Your task to perform on an android device: toggle translation in the chrome app Image 0: 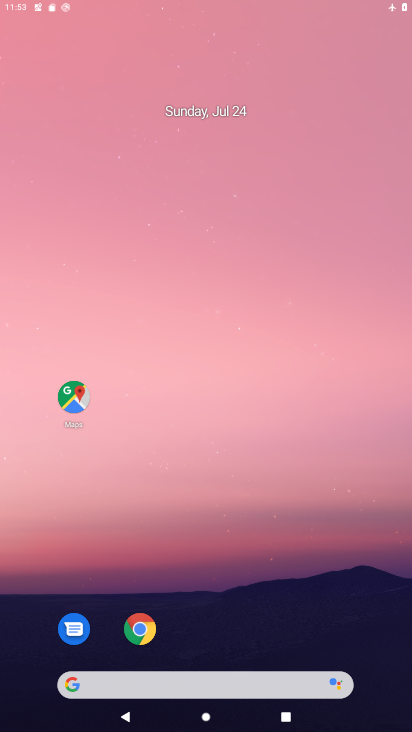
Step 0: click (184, 76)
Your task to perform on an android device: toggle translation in the chrome app Image 1: 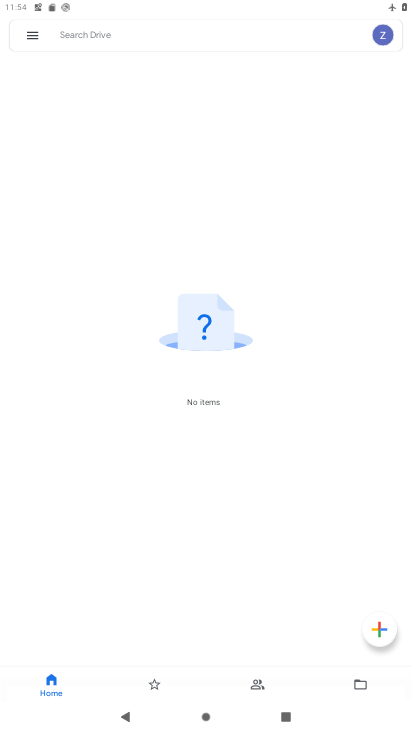
Step 1: press home button
Your task to perform on an android device: toggle translation in the chrome app Image 2: 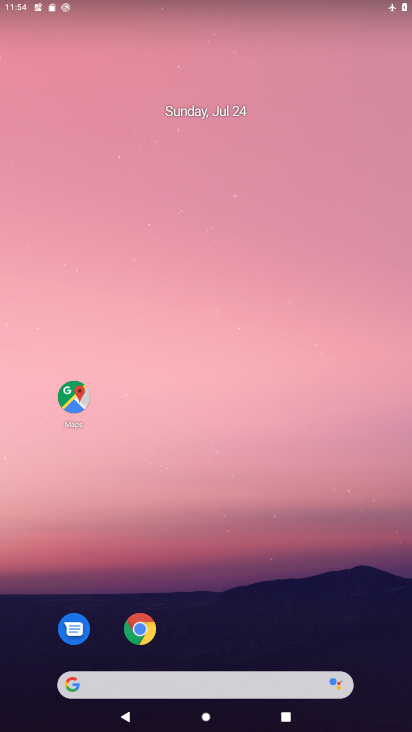
Step 2: click (141, 631)
Your task to perform on an android device: toggle translation in the chrome app Image 3: 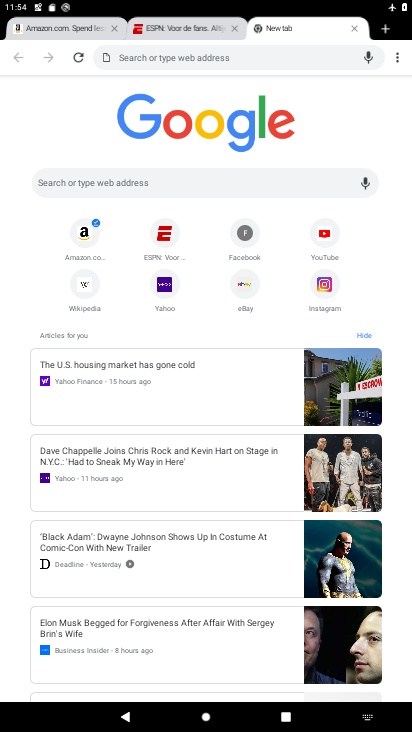
Step 3: click (394, 61)
Your task to perform on an android device: toggle translation in the chrome app Image 4: 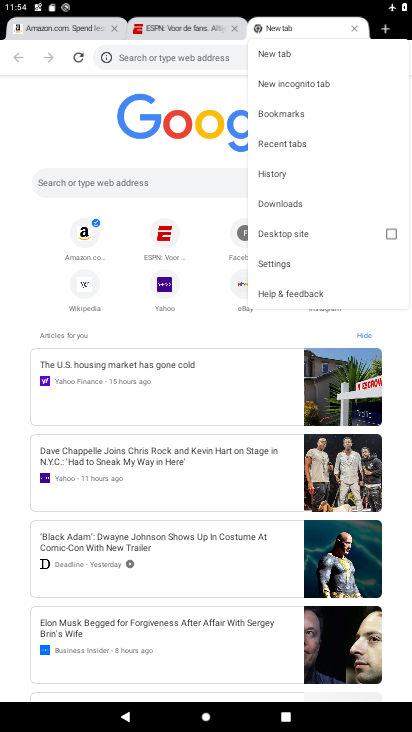
Step 4: click (278, 262)
Your task to perform on an android device: toggle translation in the chrome app Image 5: 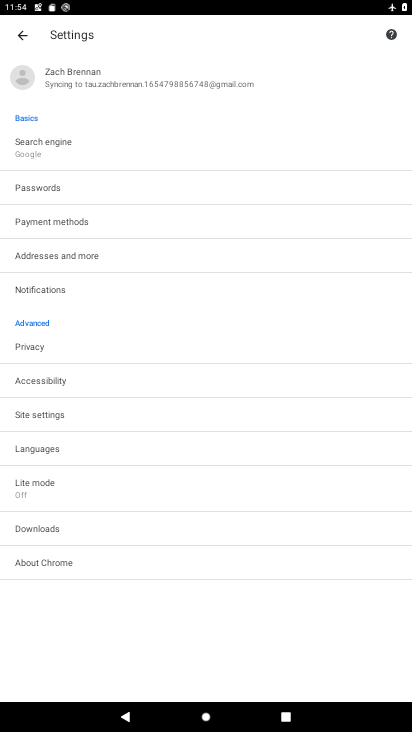
Step 5: click (58, 454)
Your task to perform on an android device: toggle translation in the chrome app Image 6: 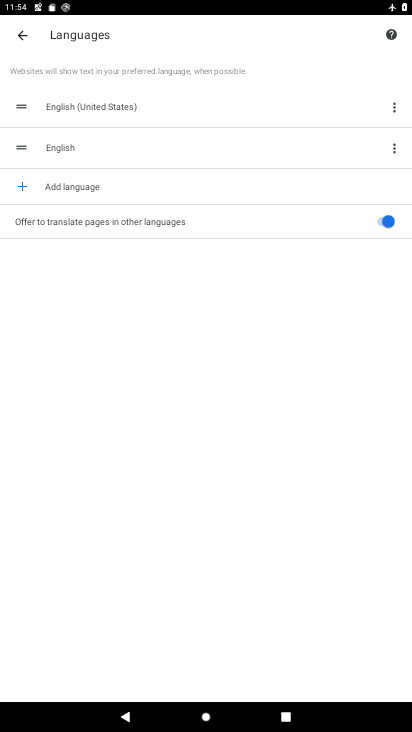
Step 6: click (366, 219)
Your task to perform on an android device: toggle translation in the chrome app Image 7: 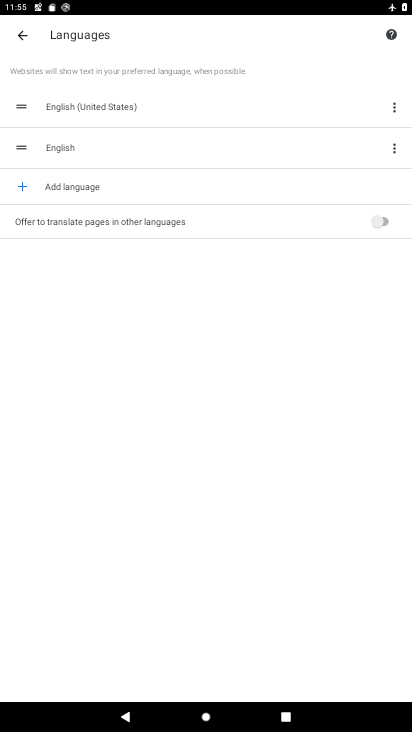
Step 7: task complete